Your task to perform on an android device: Find coffee shops on Maps Image 0: 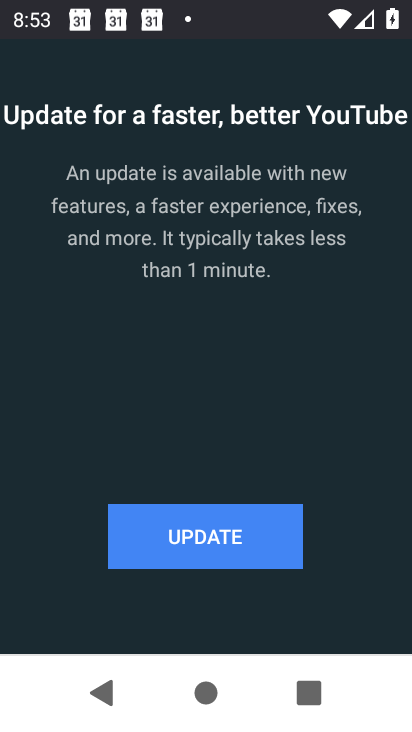
Step 0: press home button
Your task to perform on an android device: Find coffee shops on Maps Image 1: 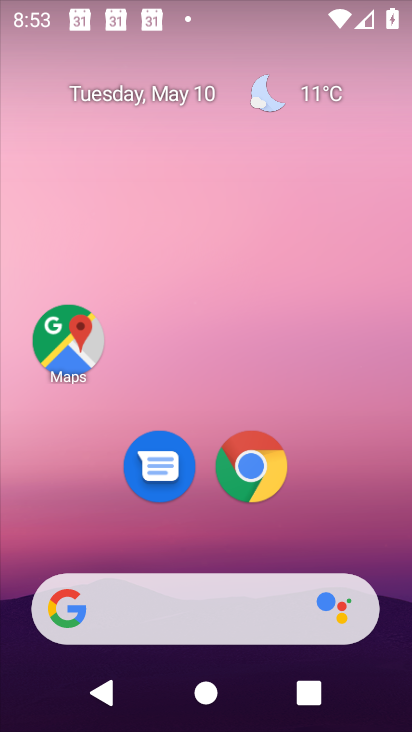
Step 1: click (70, 351)
Your task to perform on an android device: Find coffee shops on Maps Image 2: 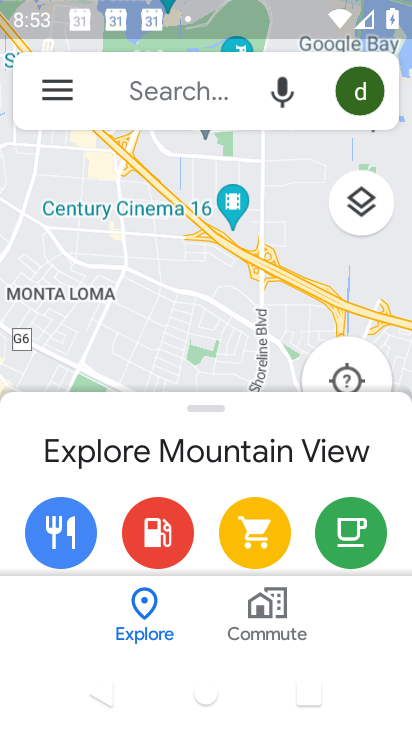
Step 2: click (132, 73)
Your task to perform on an android device: Find coffee shops on Maps Image 3: 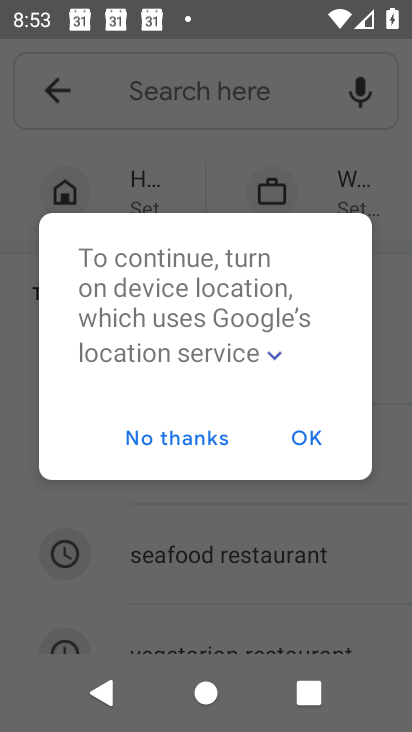
Step 3: click (195, 433)
Your task to perform on an android device: Find coffee shops on Maps Image 4: 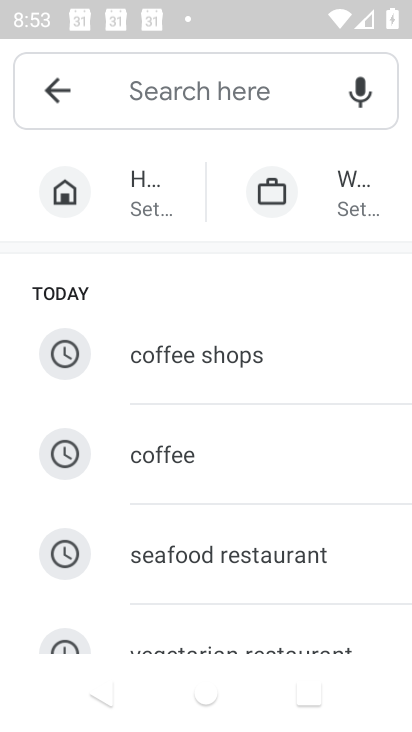
Step 4: type "coffee shops"
Your task to perform on an android device: Find coffee shops on Maps Image 5: 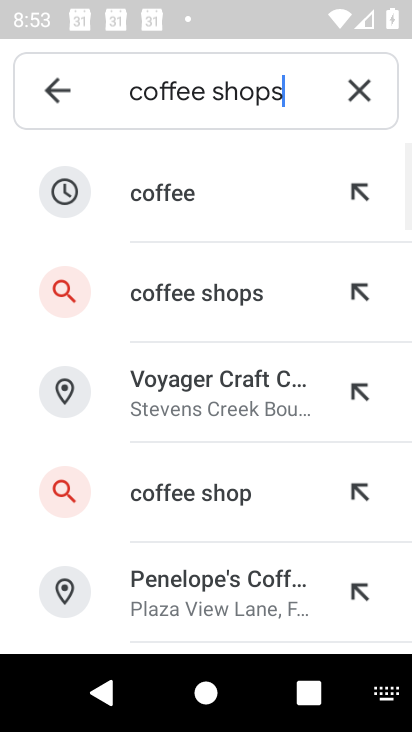
Step 5: click (235, 294)
Your task to perform on an android device: Find coffee shops on Maps Image 6: 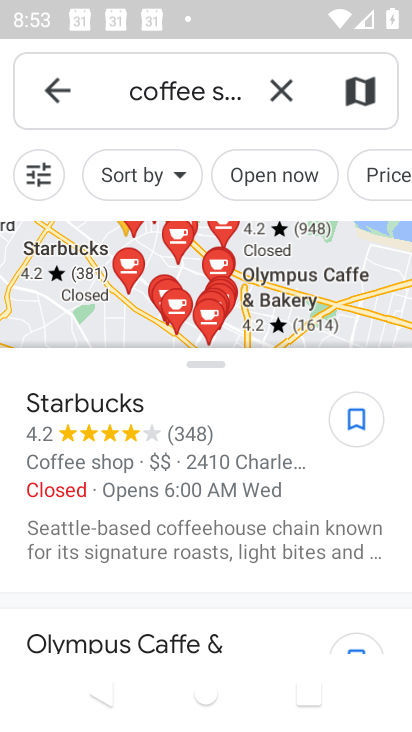
Step 6: task complete